Your task to perform on an android device: When is my next appointment? Image 0: 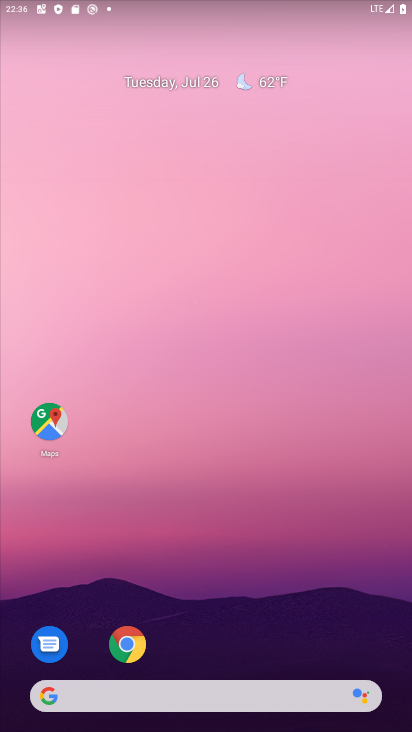
Step 0: drag from (286, 674) to (294, 39)
Your task to perform on an android device: When is my next appointment? Image 1: 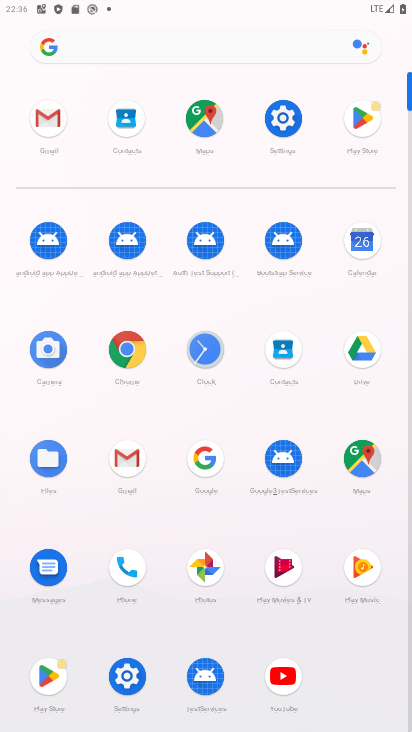
Step 1: click (367, 252)
Your task to perform on an android device: When is my next appointment? Image 2: 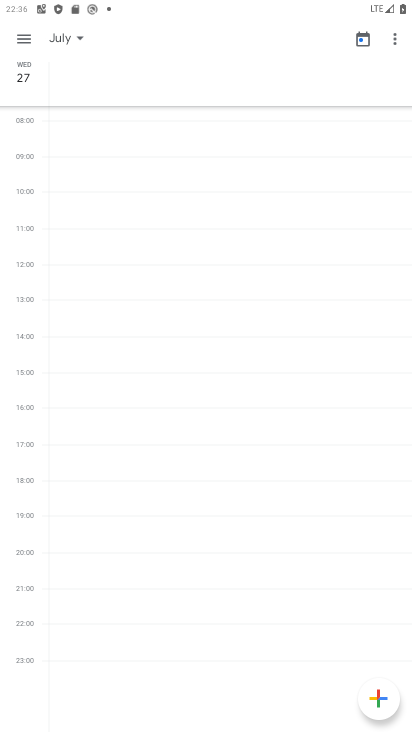
Step 2: click (28, 37)
Your task to perform on an android device: When is my next appointment? Image 3: 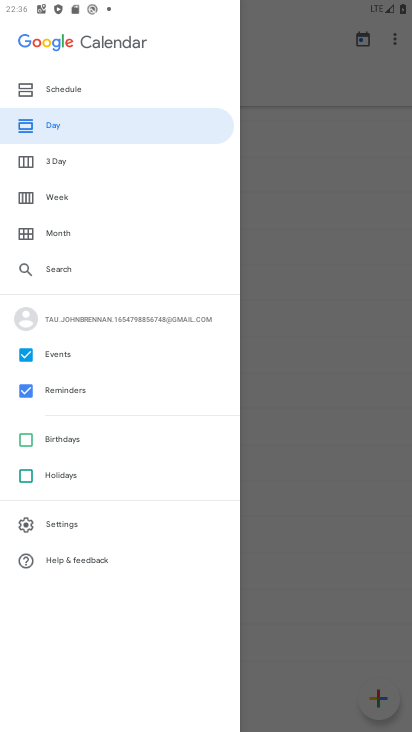
Step 3: click (44, 81)
Your task to perform on an android device: When is my next appointment? Image 4: 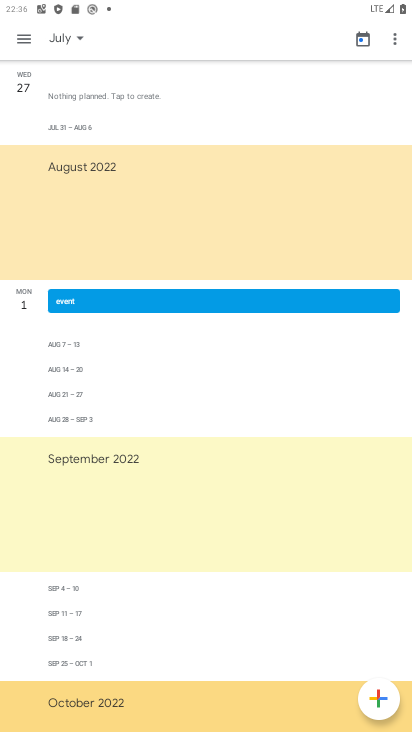
Step 4: click (89, 304)
Your task to perform on an android device: When is my next appointment? Image 5: 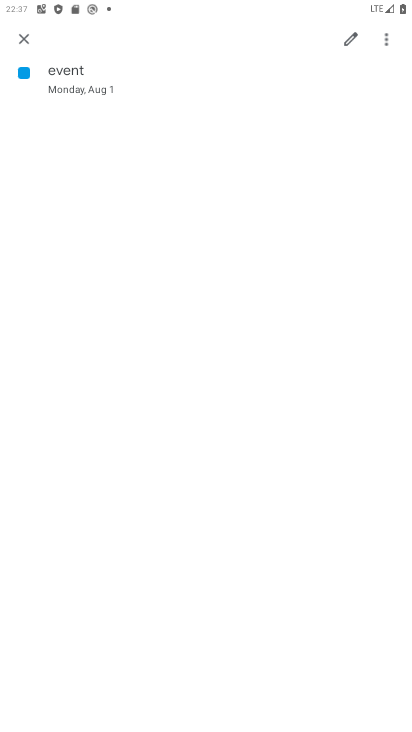
Step 5: task complete